Your task to perform on an android device: toggle wifi Image 0: 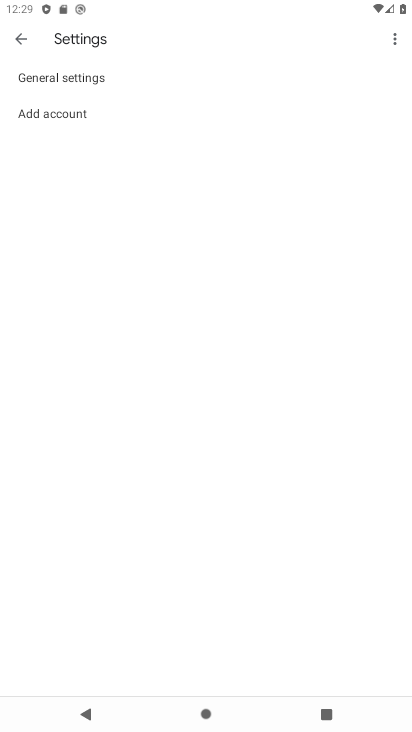
Step 0: press home button
Your task to perform on an android device: toggle wifi Image 1: 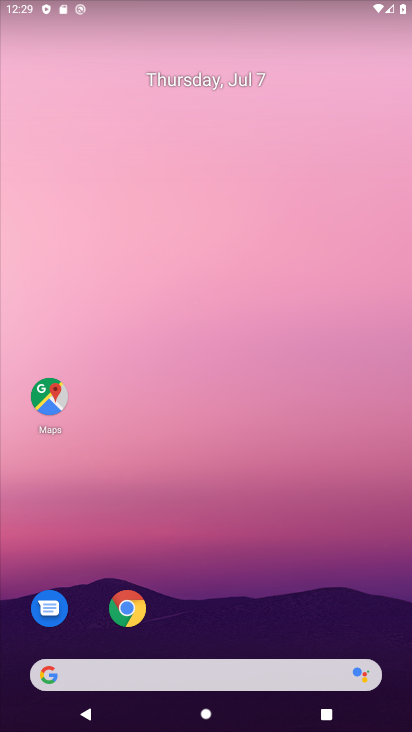
Step 1: drag from (198, 643) to (265, 211)
Your task to perform on an android device: toggle wifi Image 2: 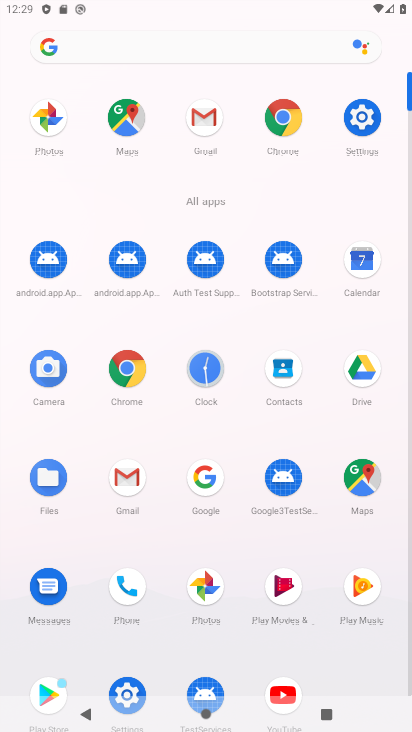
Step 2: click (127, 681)
Your task to perform on an android device: toggle wifi Image 3: 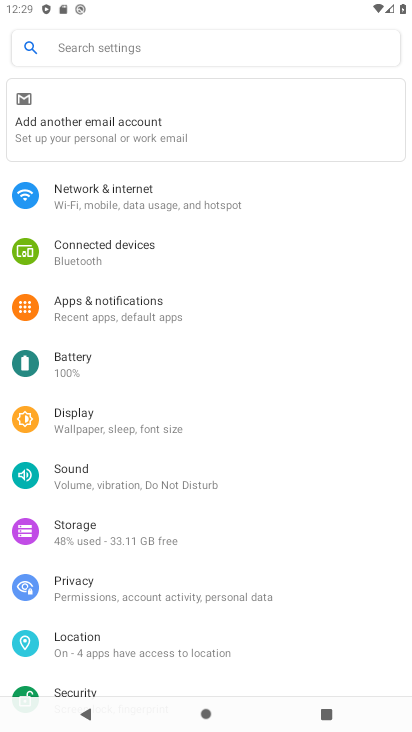
Step 3: click (131, 199)
Your task to perform on an android device: toggle wifi Image 4: 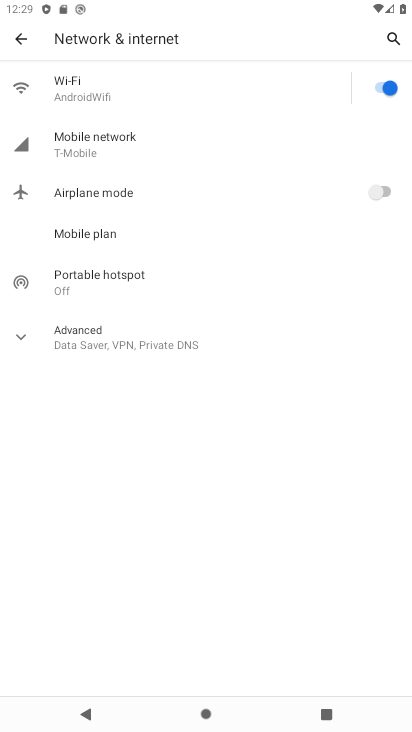
Step 4: click (372, 82)
Your task to perform on an android device: toggle wifi Image 5: 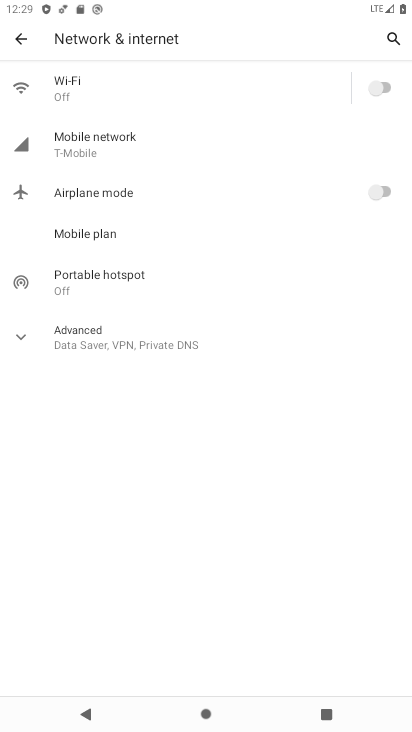
Step 5: task complete